Your task to perform on an android device: Search for "razer deathadder" on amazon.com, select the first entry, and add it to the cart. Image 0: 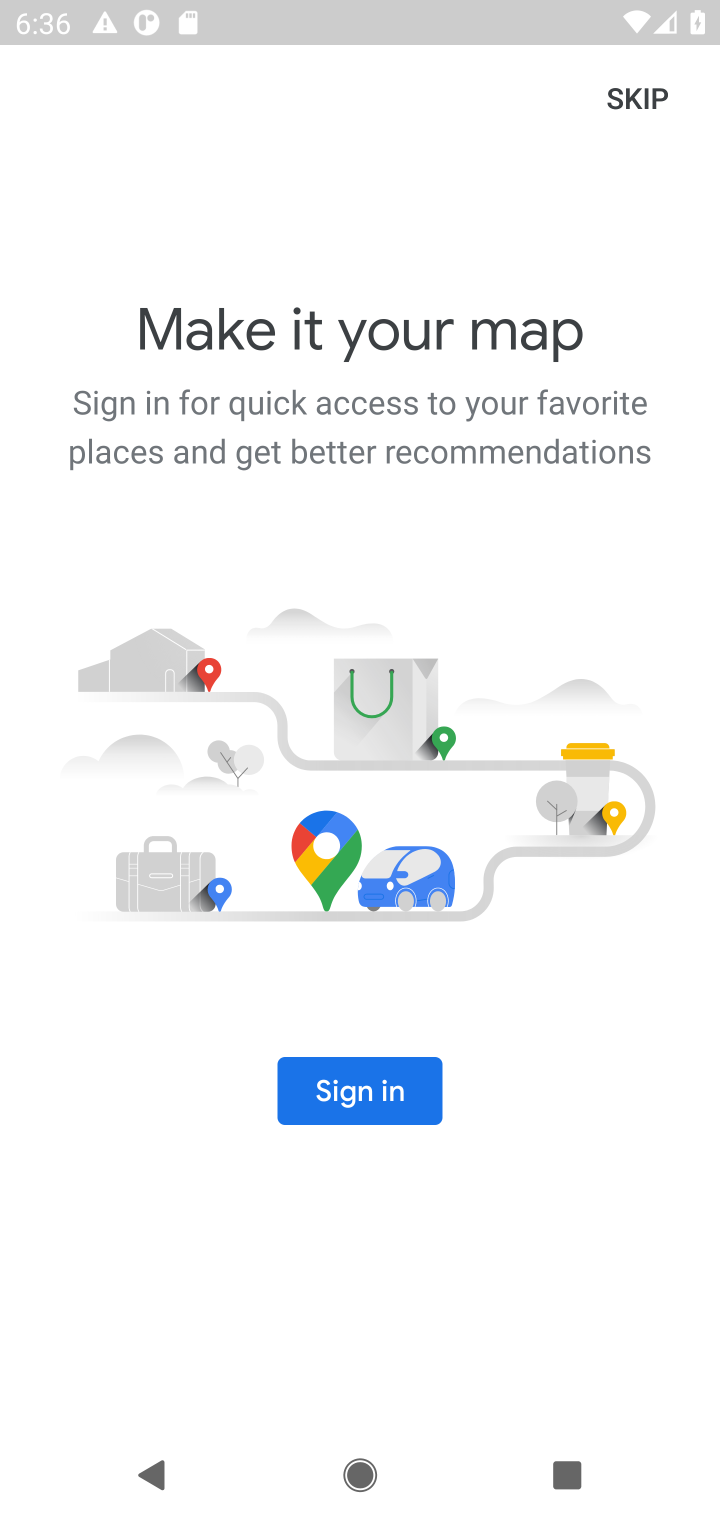
Step 0: press home button
Your task to perform on an android device: Search for "razer deathadder" on amazon.com, select the first entry, and add it to the cart. Image 1: 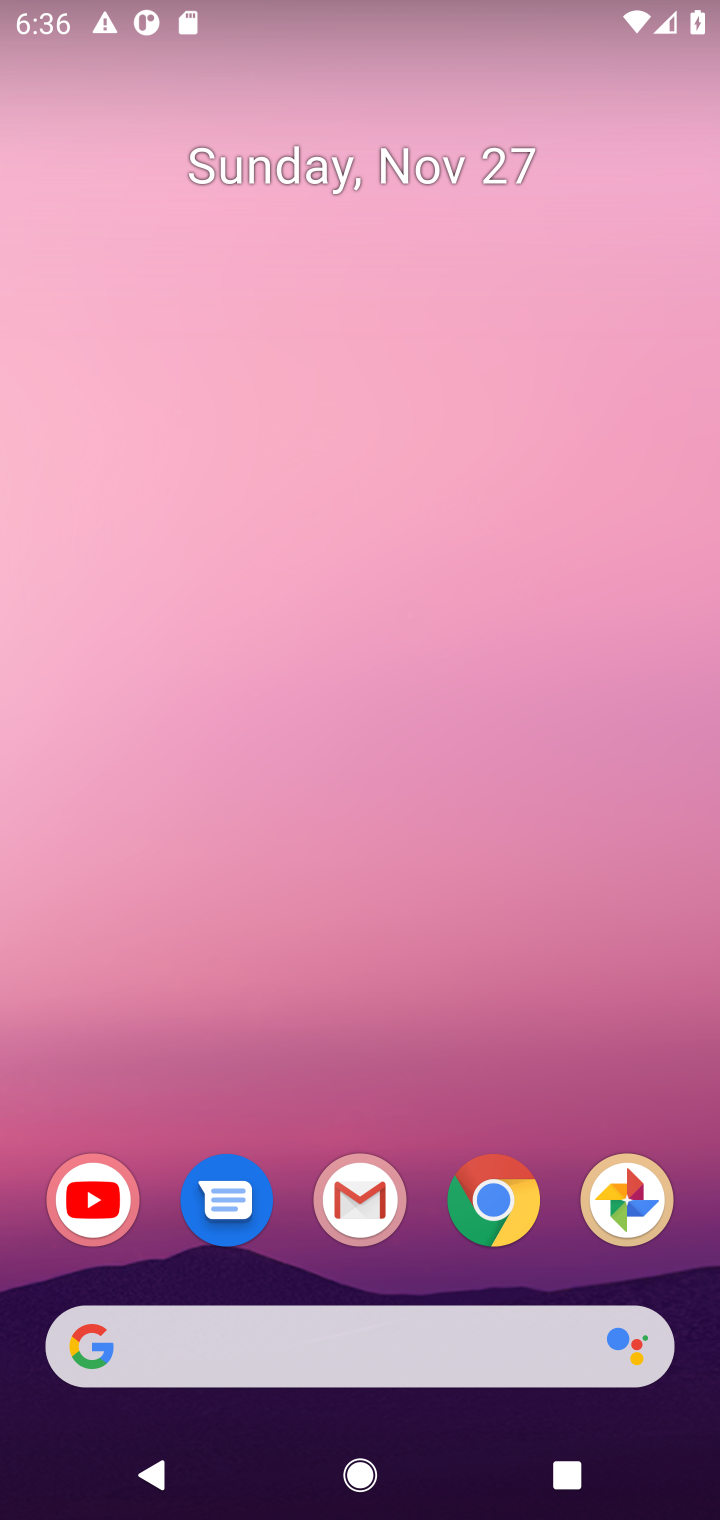
Step 1: click (485, 1213)
Your task to perform on an android device: Search for "razer deathadder" on amazon.com, select the first entry, and add it to the cart. Image 2: 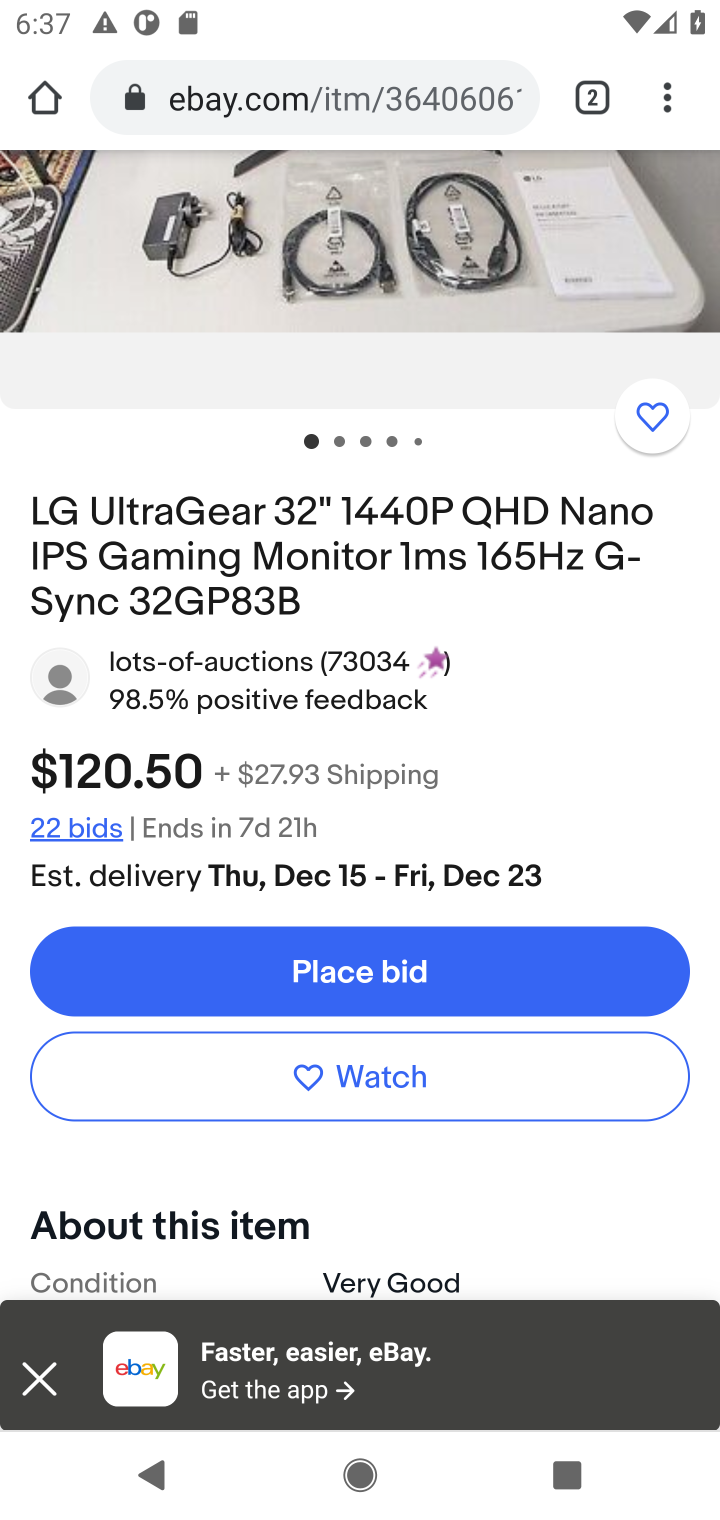
Step 2: click (355, 96)
Your task to perform on an android device: Search for "razer deathadder" on amazon.com, select the first entry, and add it to the cart. Image 3: 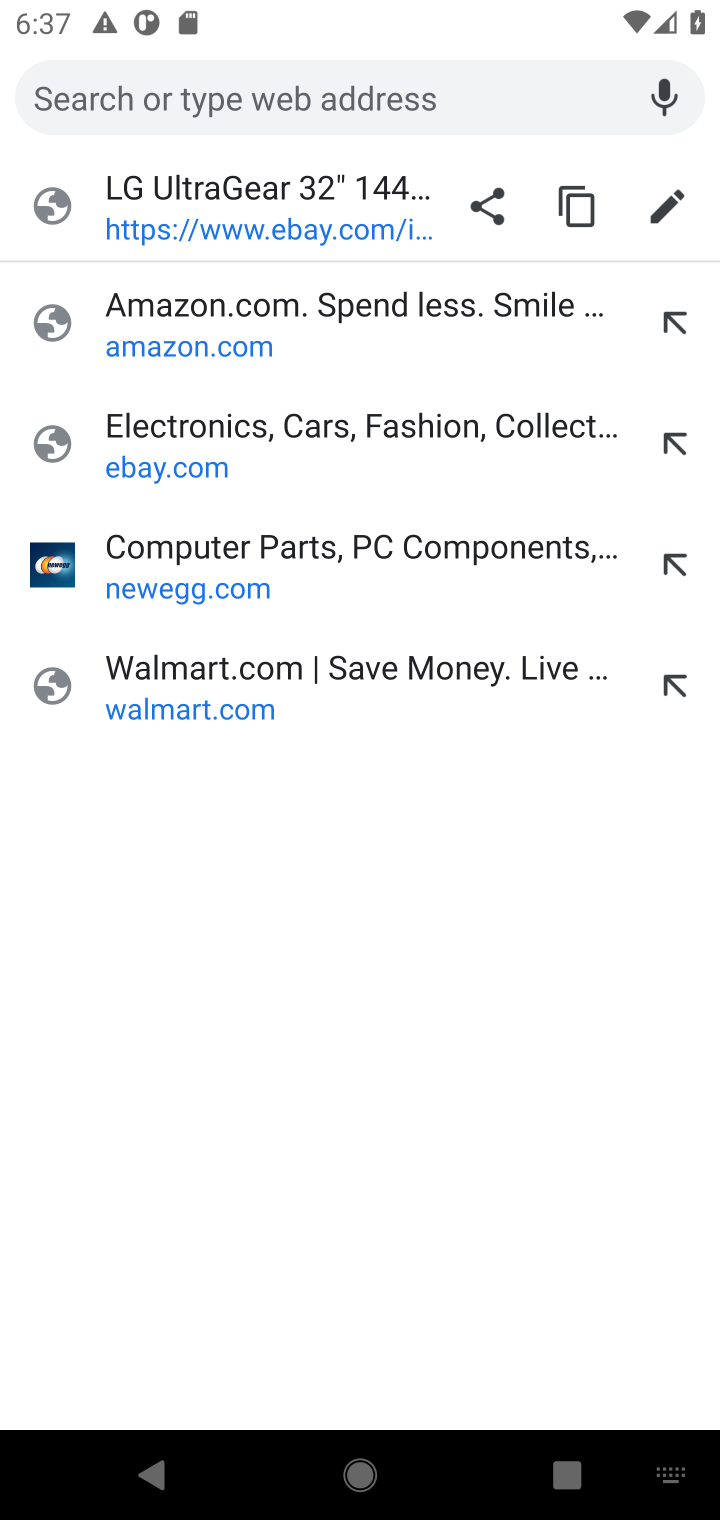
Step 3: click (137, 349)
Your task to perform on an android device: Search for "razer deathadder" on amazon.com, select the first entry, and add it to the cart. Image 4: 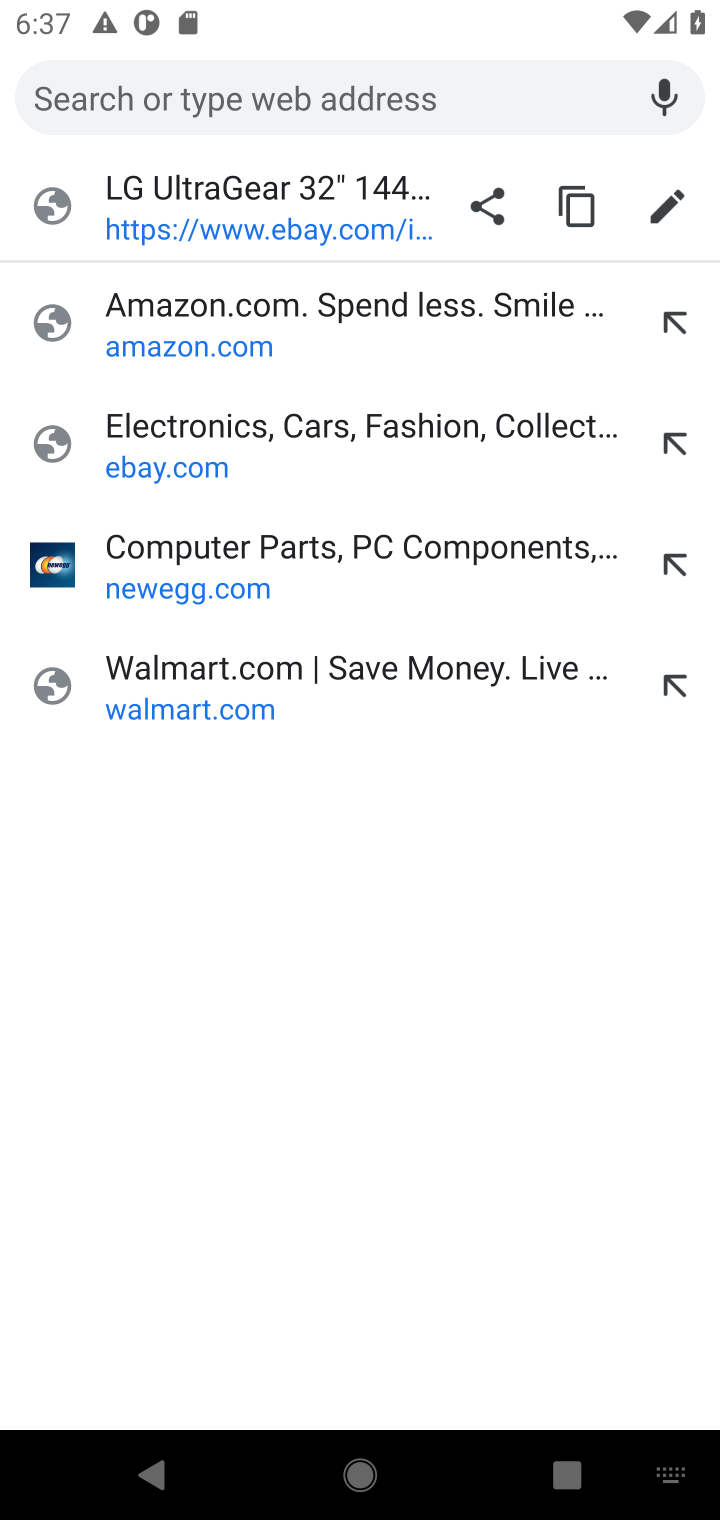
Step 4: click (167, 327)
Your task to perform on an android device: Search for "razer deathadder" on amazon.com, select the first entry, and add it to the cart. Image 5: 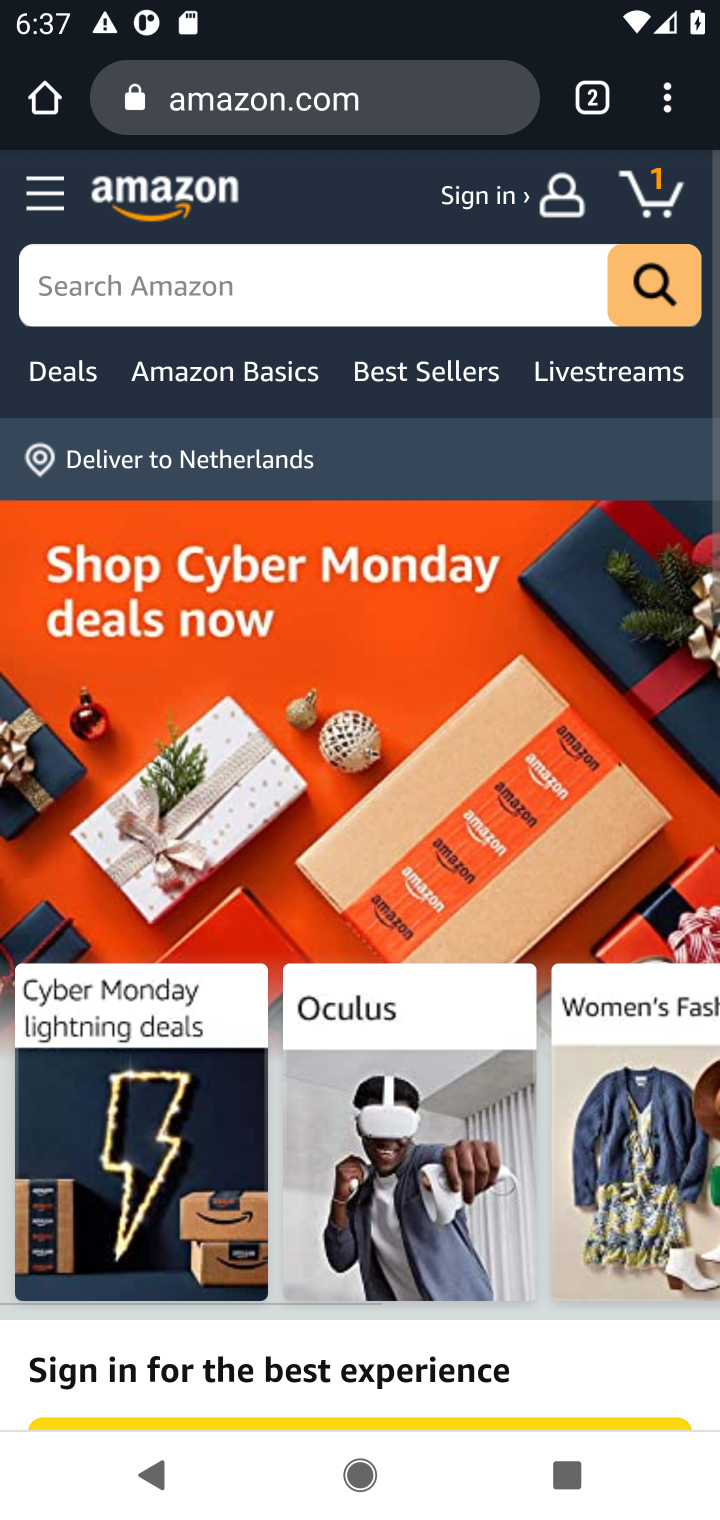
Step 5: click (91, 287)
Your task to perform on an android device: Search for "razer deathadder" on amazon.com, select the first entry, and add it to the cart. Image 6: 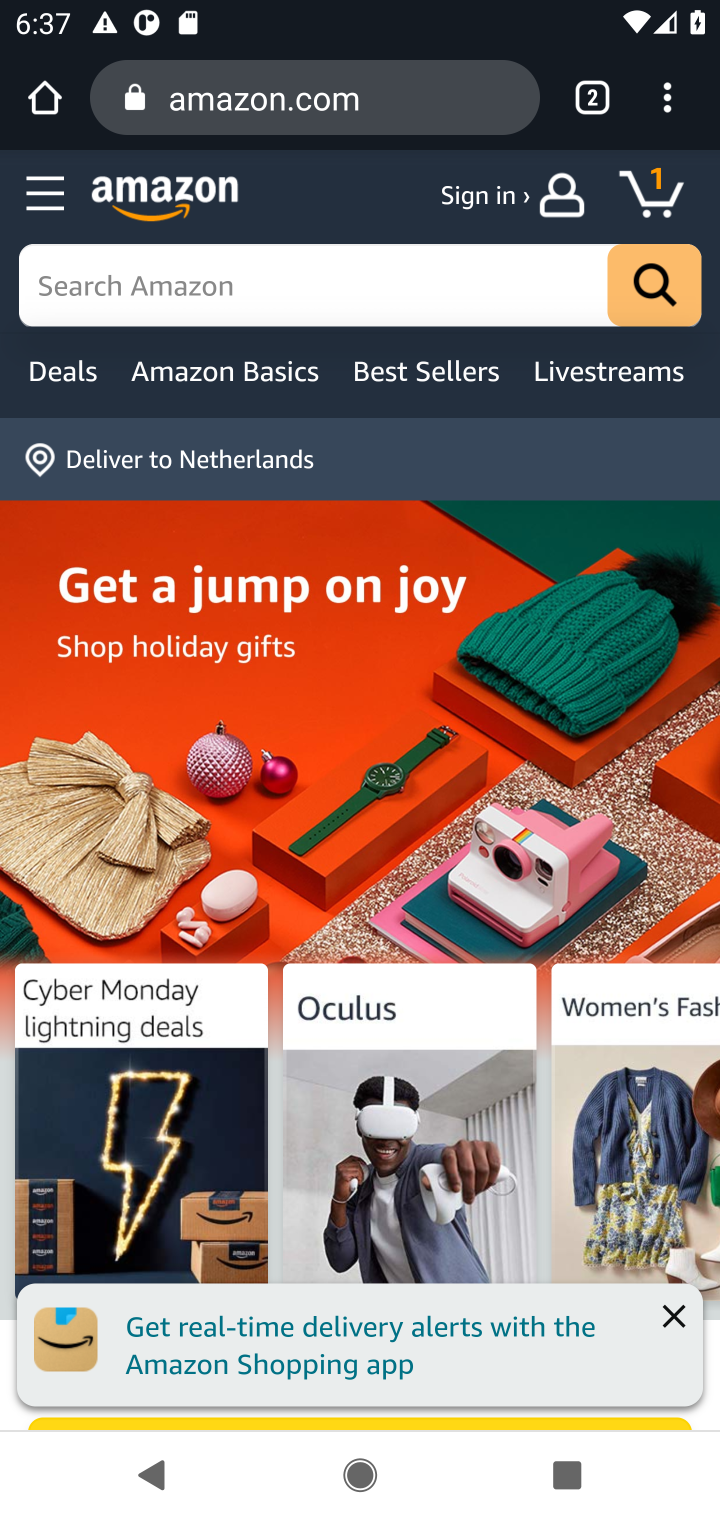
Step 6: click (91, 287)
Your task to perform on an android device: Search for "razer deathadder" on amazon.com, select the first entry, and add it to the cart. Image 7: 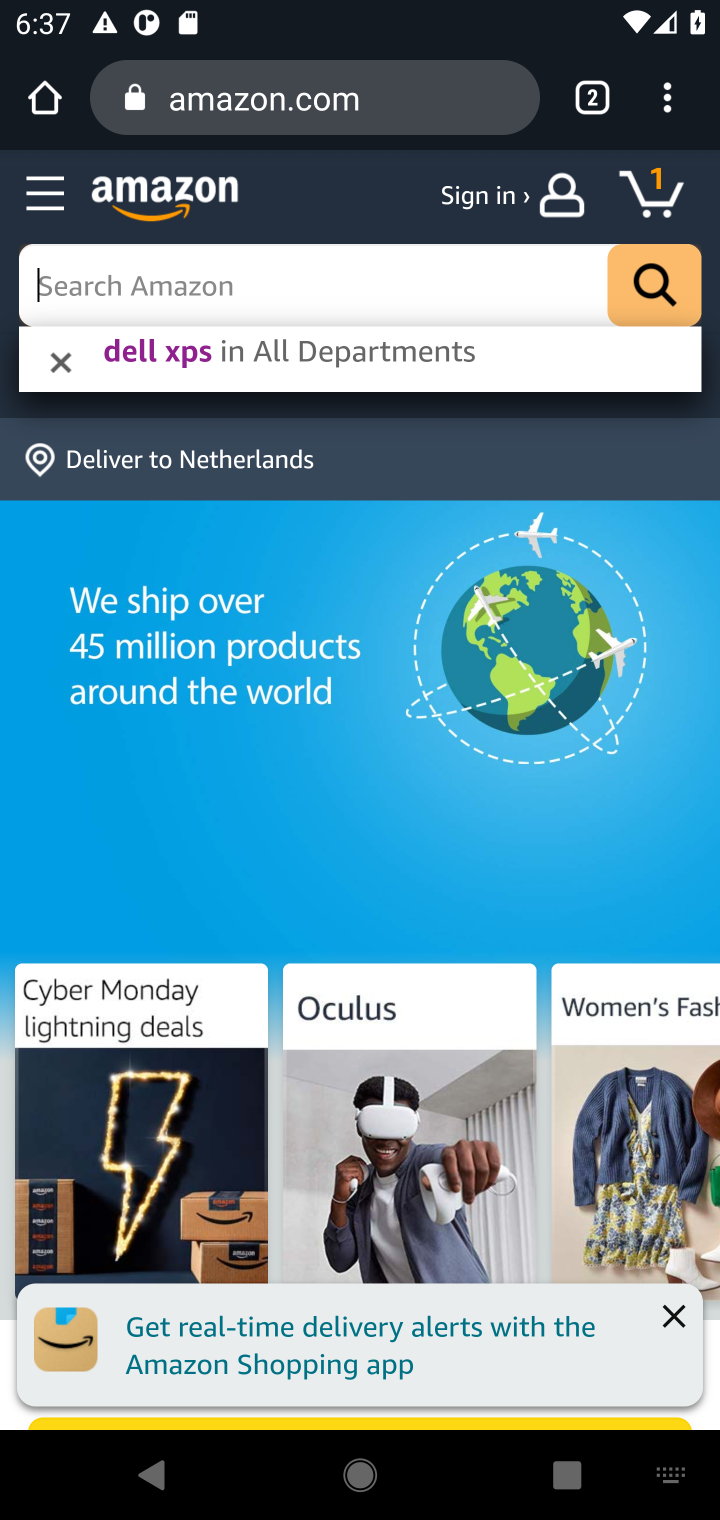
Step 7: type "razer deathadder"
Your task to perform on an android device: Search for "razer deathadder" on amazon.com, select the first entry, and add it to the cart. Image 8: 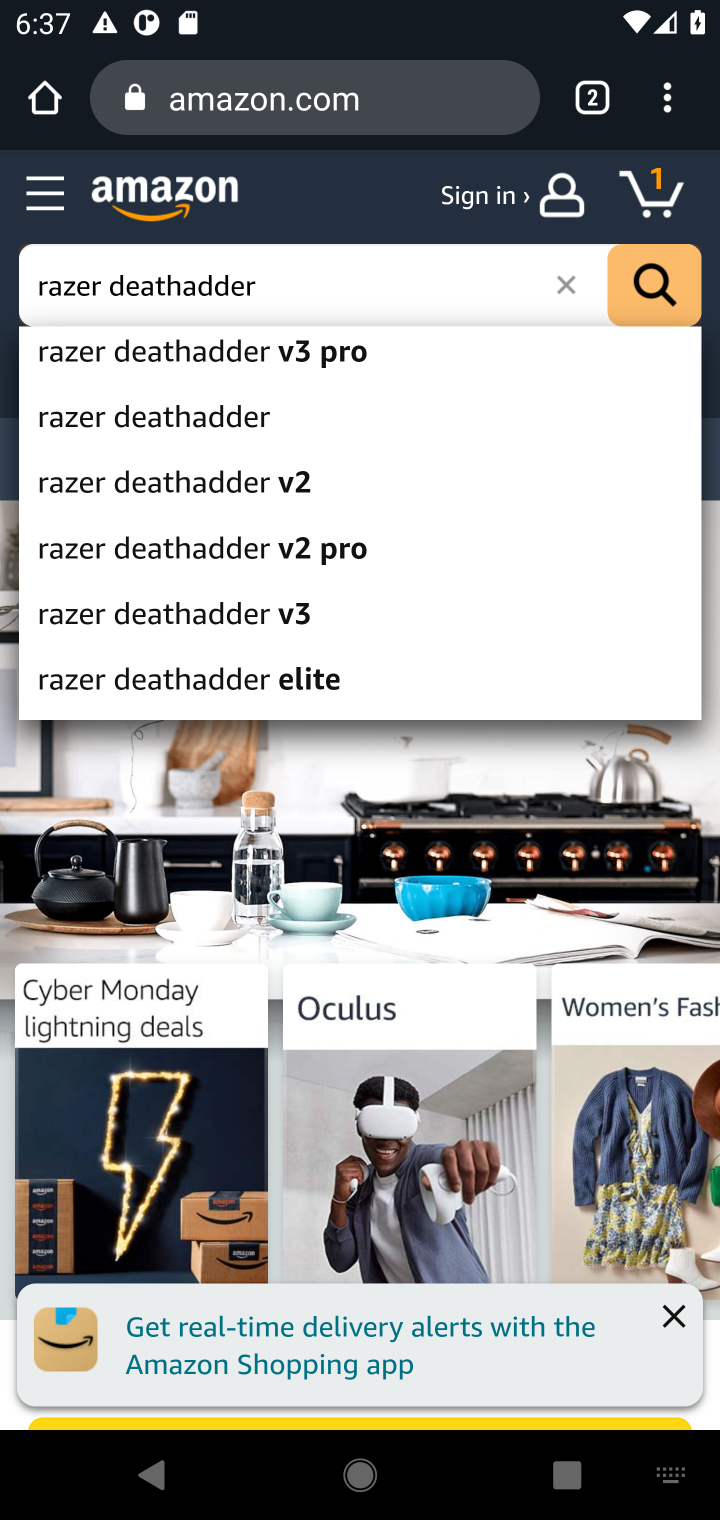
Step 8: click (211, 428)
Your task to perform on an android device: Search for "razer deathadder" on amazon.com, select the first entry, and add it to the cart. Image 9: 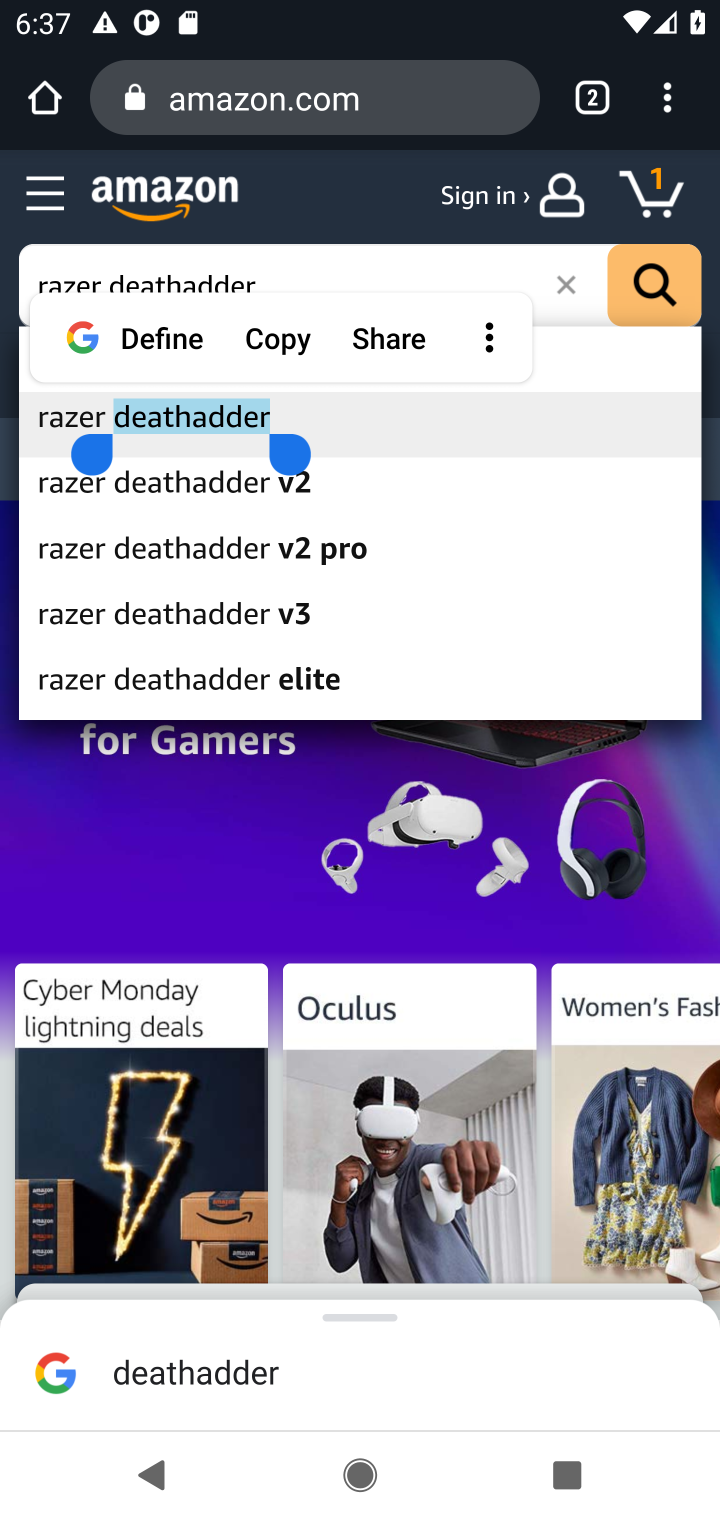
Step 9: click (82, 434)
Your task to perform on an android device: Search for "razer deathadder" on amazon.com, select the first entry, and add it to the cart. Image 10: 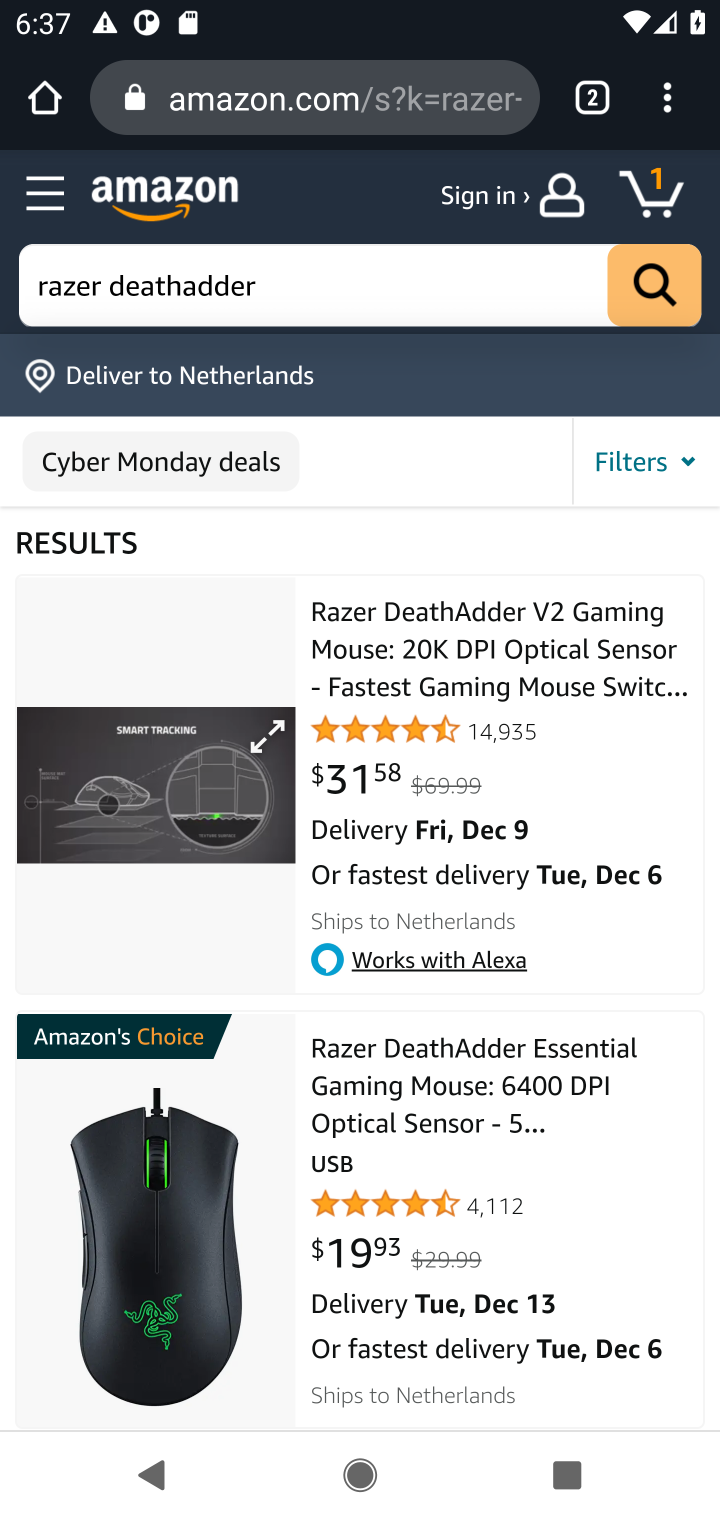
Step 10: click (413, 690)
Your task to perform on an android device: Search for "razer deathadder" on amazon.com, select the first entry, and add it to the cart. Image 11: 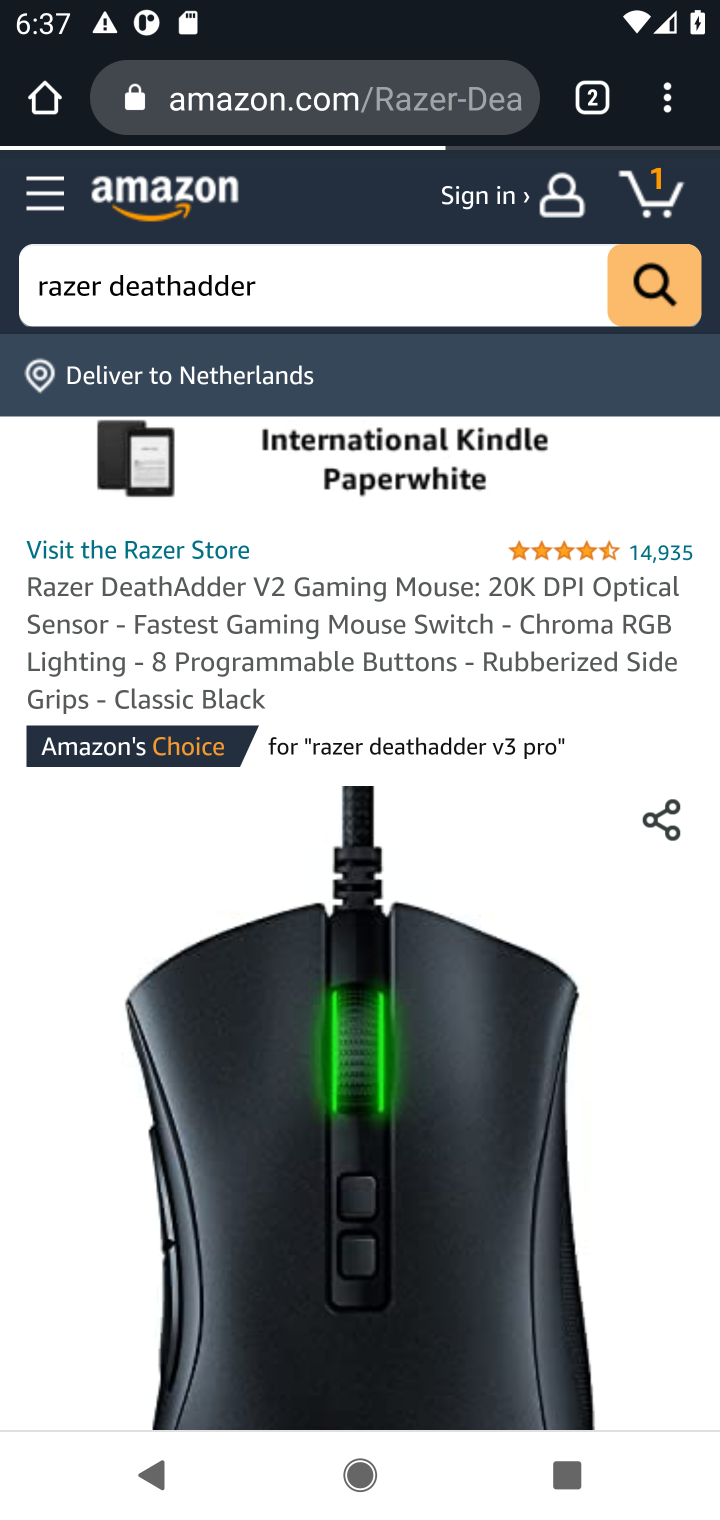
Step 11: drag from (272, 1141) to (300, 562)
Your task to perform on an android device: Search for "razer deathadder" on amazon.com, select the first entry, and add it to the cart. Image 12: 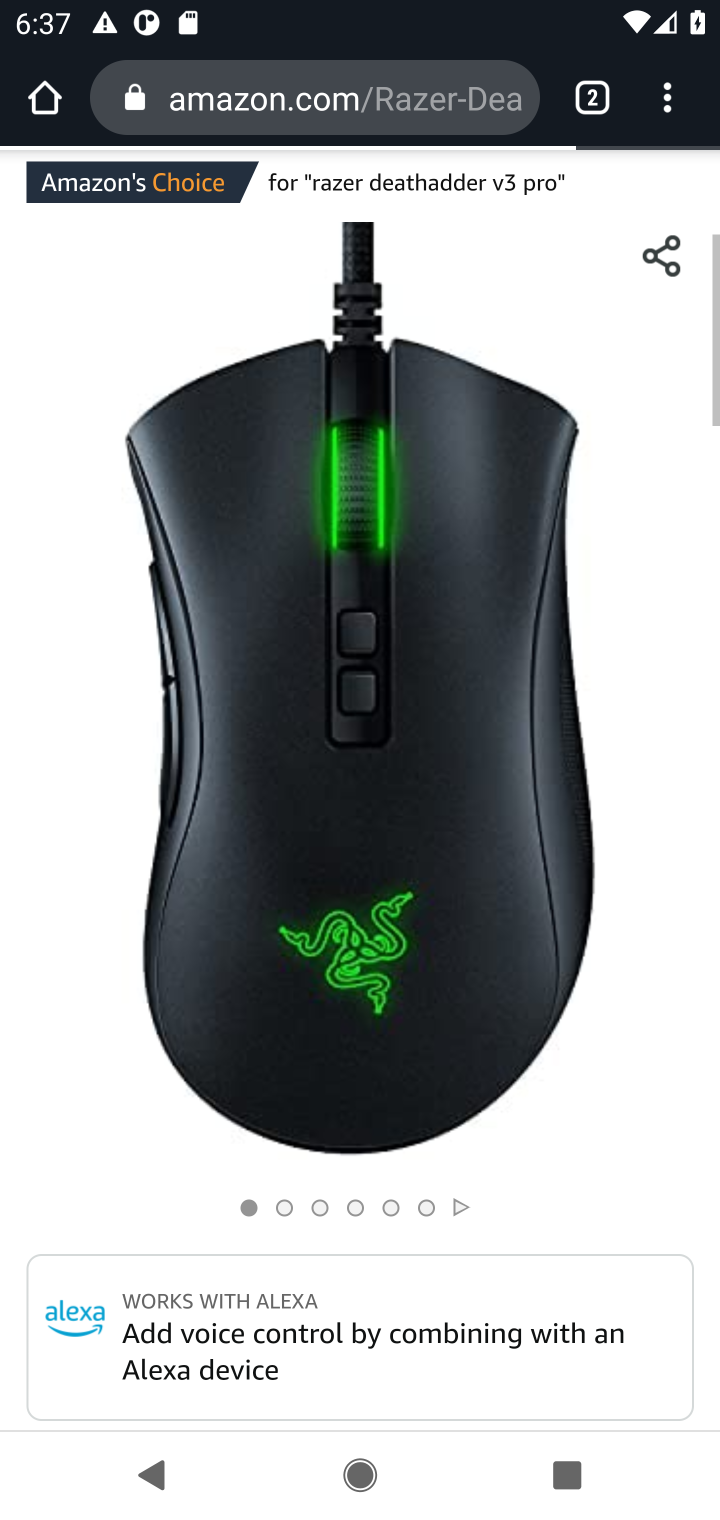
Step 12: drag from (289, 989) to (219, 431)
Your task to perform on an android device: Search for "razer deathadder" on amazon.com, select the first entry, and add it to the cart. Image 13: 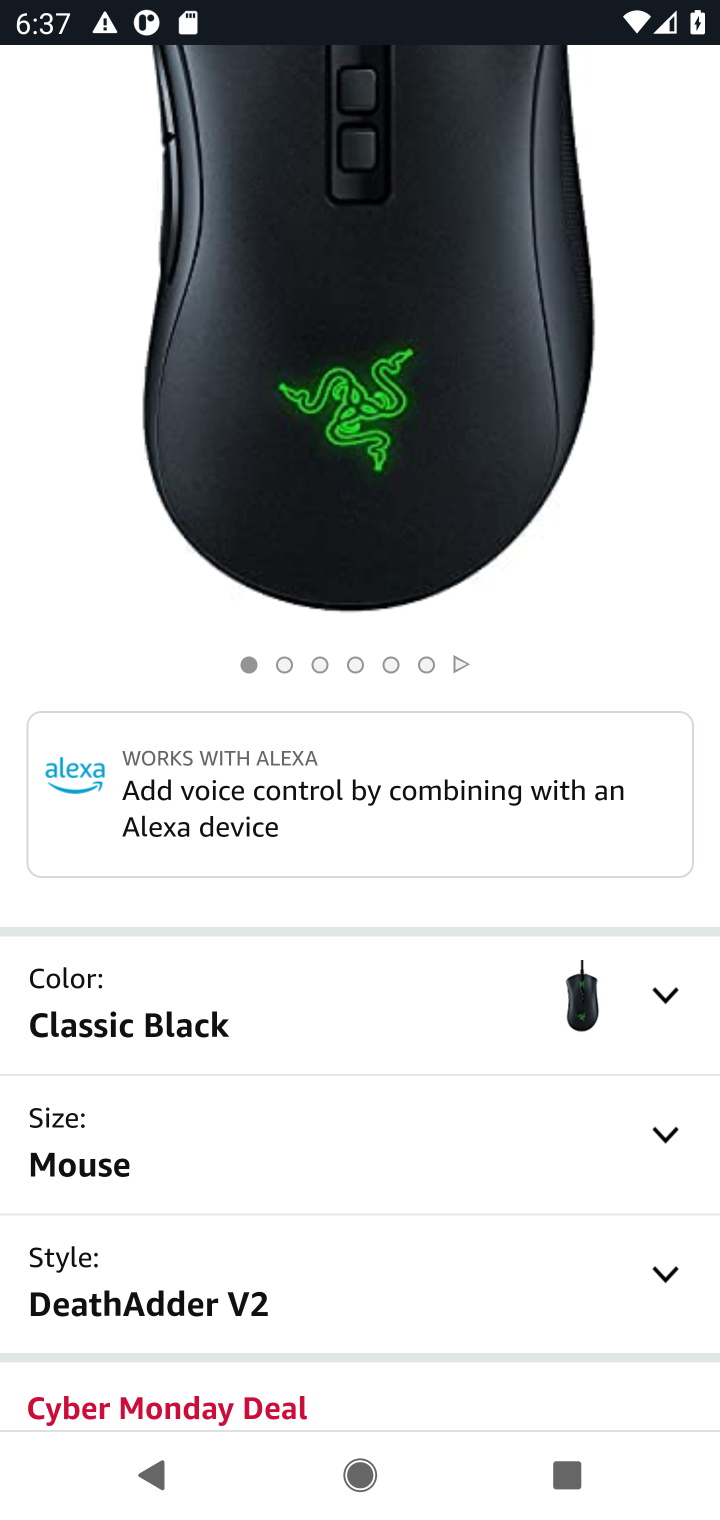
Step 13: drag from (228, 884) to (268, 453)
Your task to perform on an android device: Search for "razer deathadder" on amazon.com, select the first entry, and add it to the cart. Image 14: 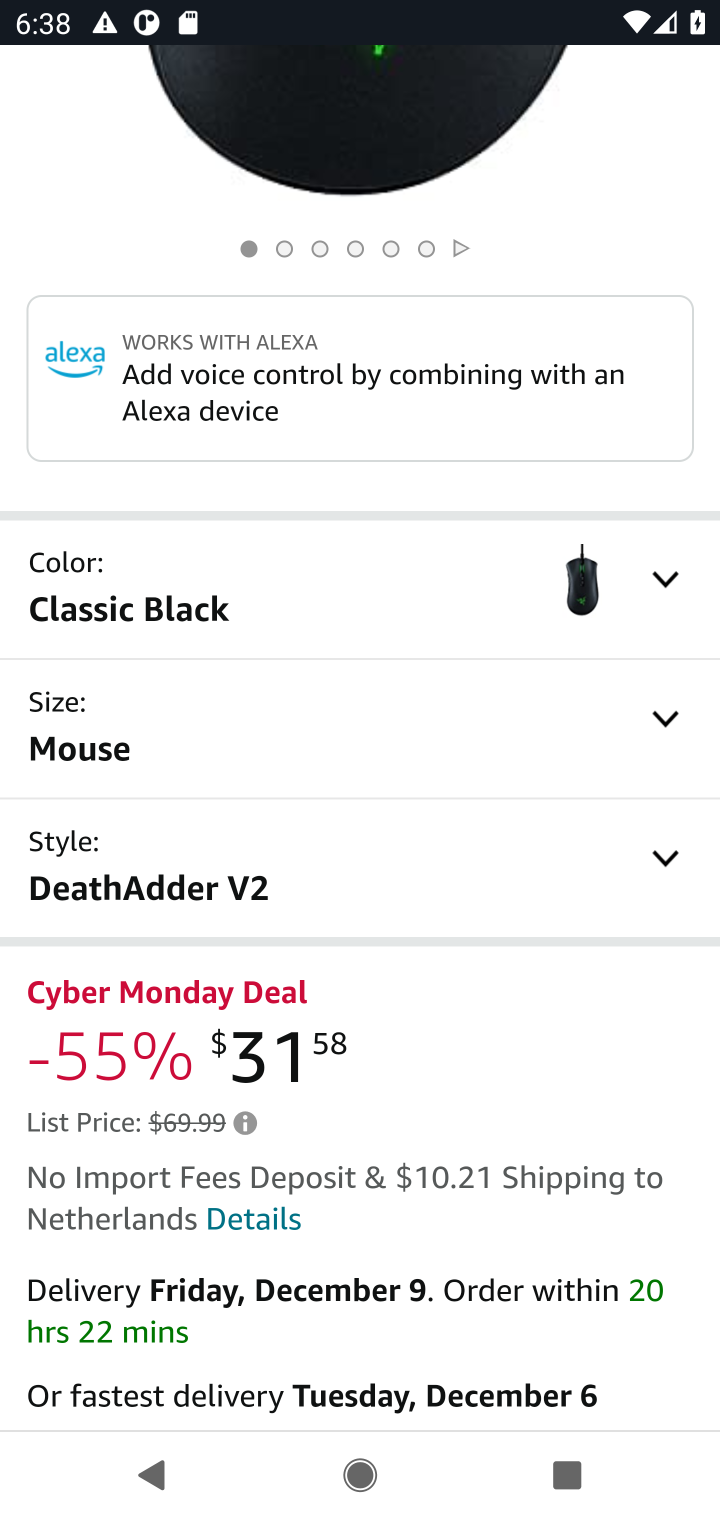
Step 14: drag from (178, 979) to (157, 532)
Your task to perform on an android device: Search for "razer deathadder" on amazon.com, select the first entry, and add it to the cart. Image 15: 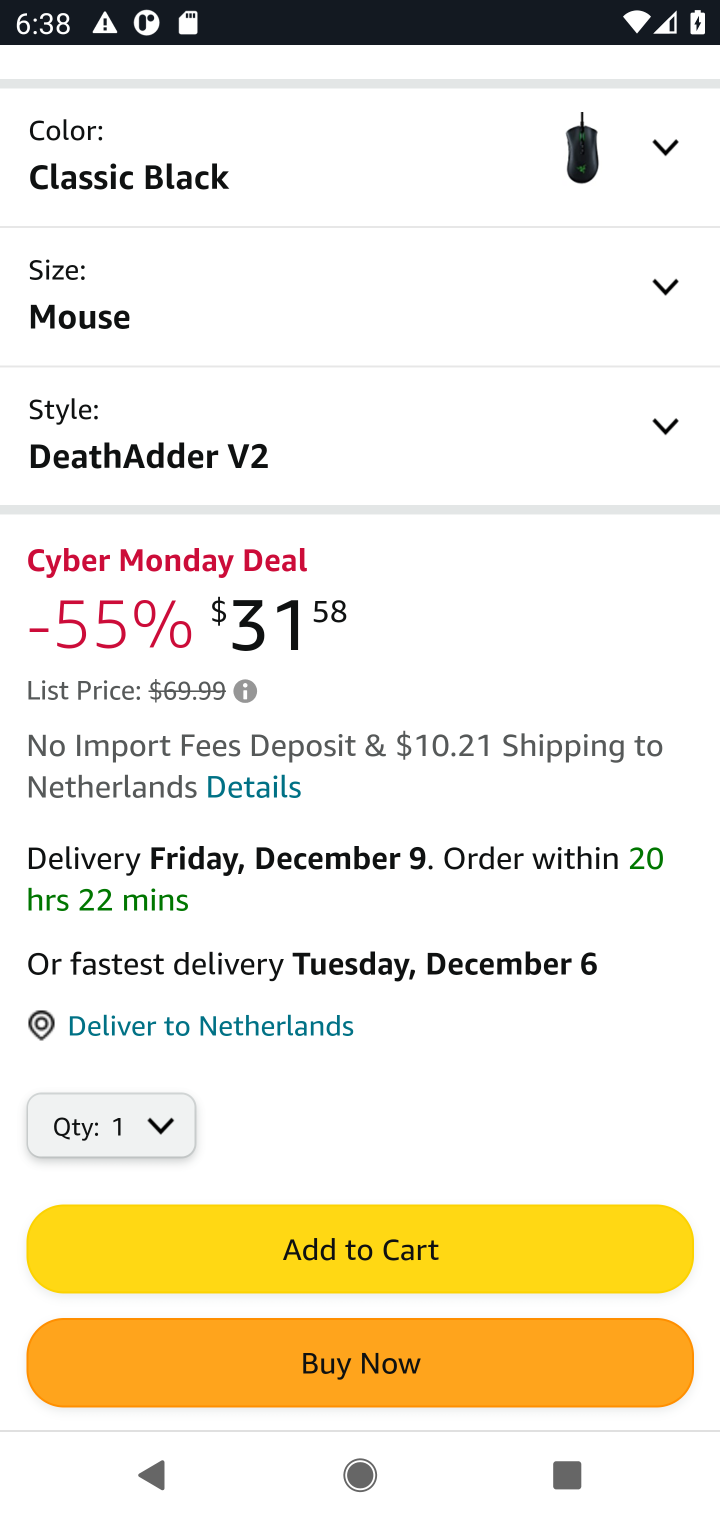
Step 15: click (268, 1248)
Your task to perform on an android device: Search for "razer deathadder" on amazon.com, select the first entry, and add it to the cart. Image 16: 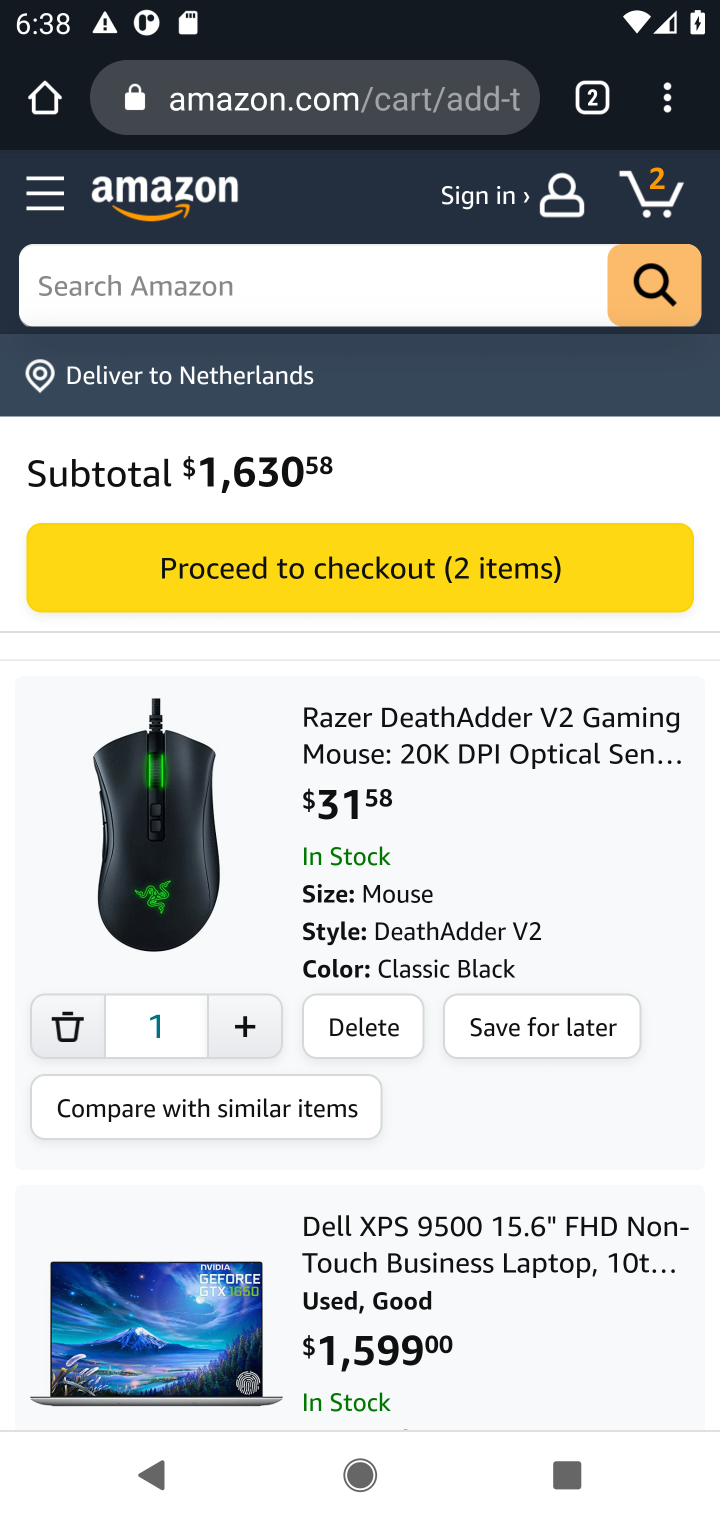
Step 16: task complete